Your task to perform on an android device: turn notification dots on Image 0: 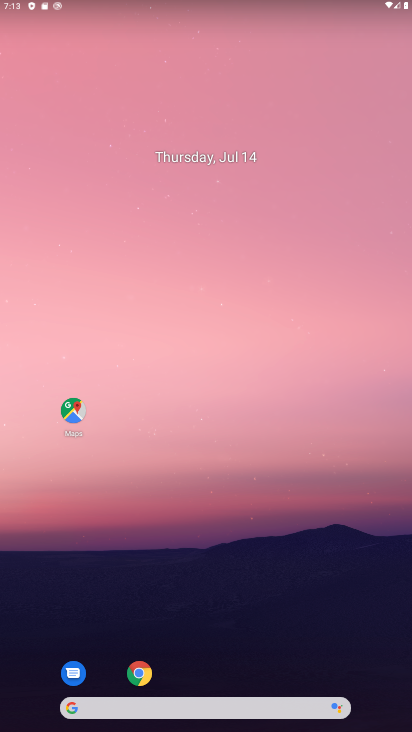
Step 0: drag from (245, 596) to (196, 196)
Your task to perform on an android device: turn notification dots on Image 1: 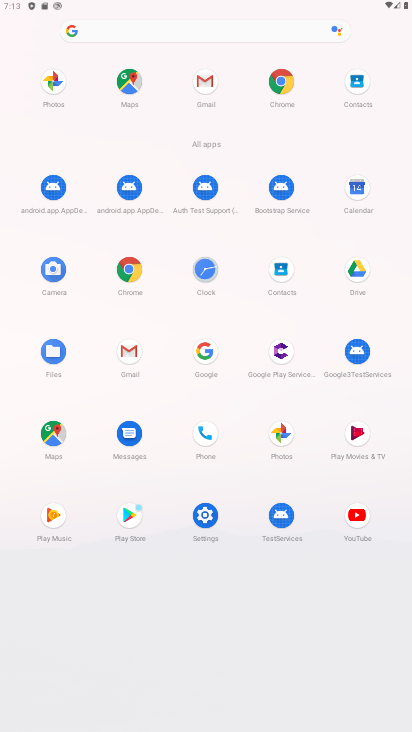
Step 1: click (206, 515)
Your task to perform on an android device: turn notification dots on Image 2: 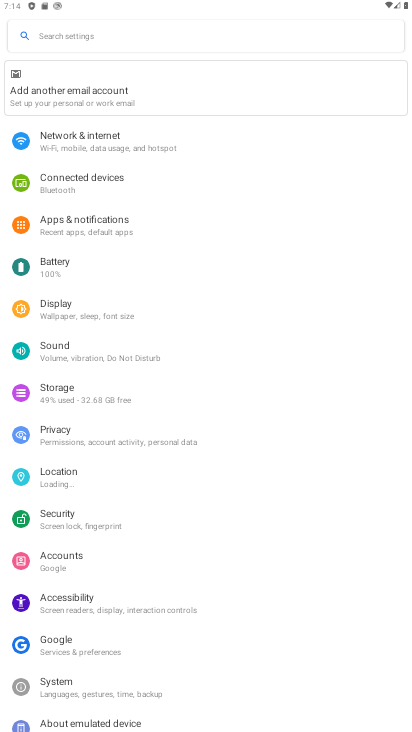
Step 2: click (90, 218)
Your task to perform on an android device: turn notification dots on Image 3: 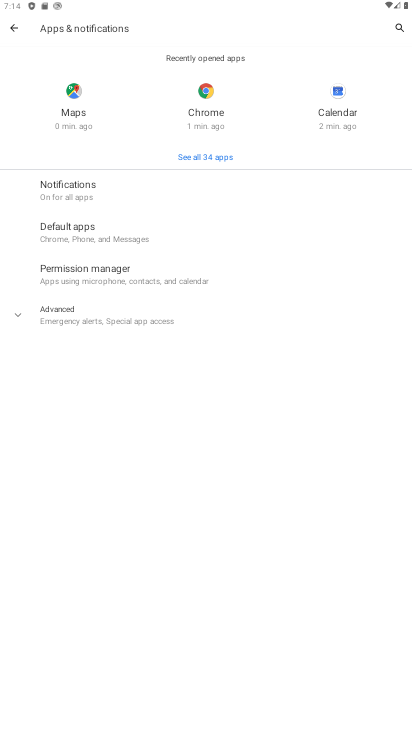
Step 3: click (62, 180)
Your task to perform on an android device: turn notification dots on Image 4: 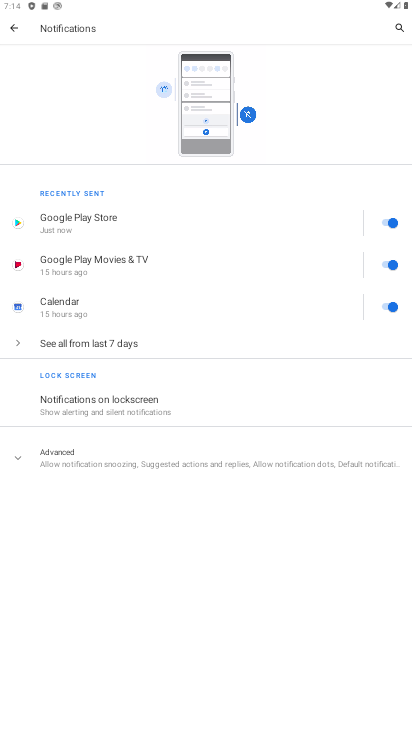
Step 4: click (22, 454)
Your task to perform on an android device: turn notification dots on Image 5: 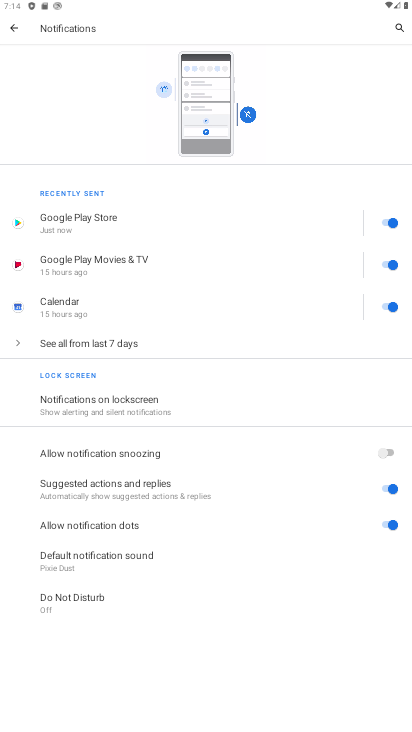
Step 5: task complete